Your task to perform on an android device: Open Google Chrome Image 0: 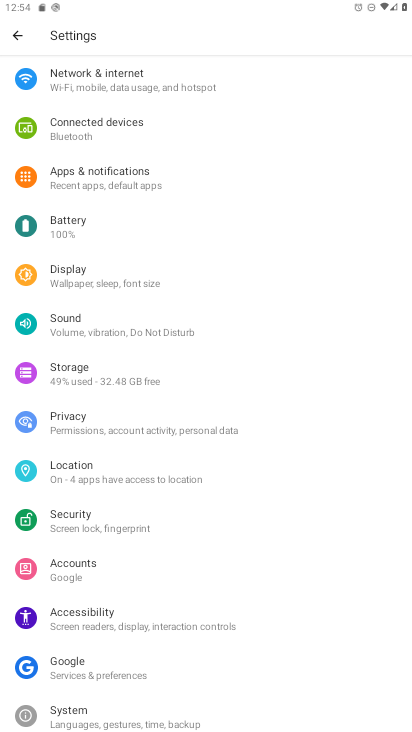
Step 0: press home button
Your task to perform on an android device: Open Google Chrome Image 1: 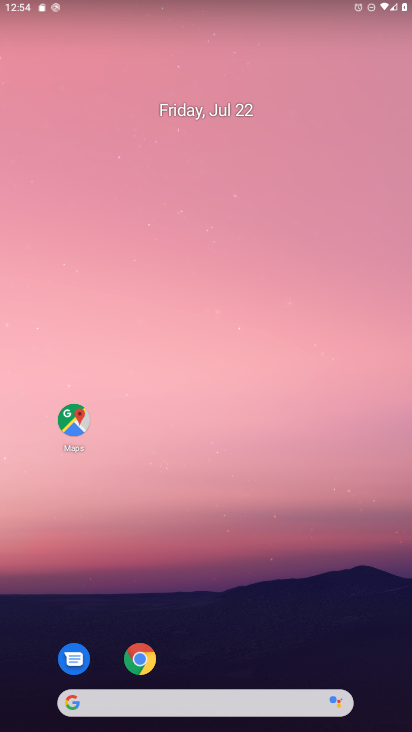
Step 1: click (149, 658)
Your task to perform on an android device: Open Google Chrome Image 2: 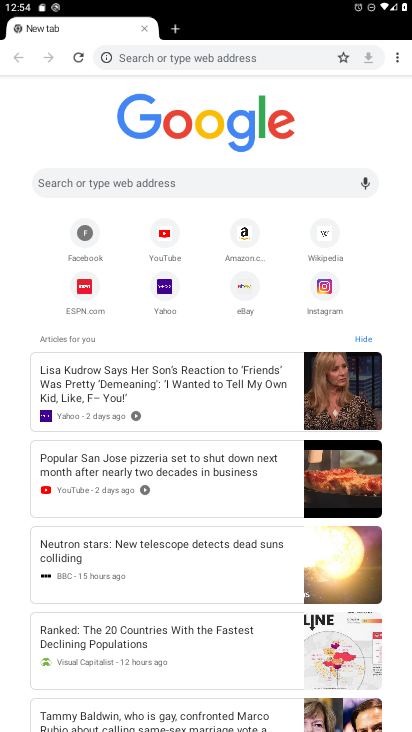
Step 2: task complete